Your task to perform on an android device: Show me productivity apps on the Play Store Image 0: 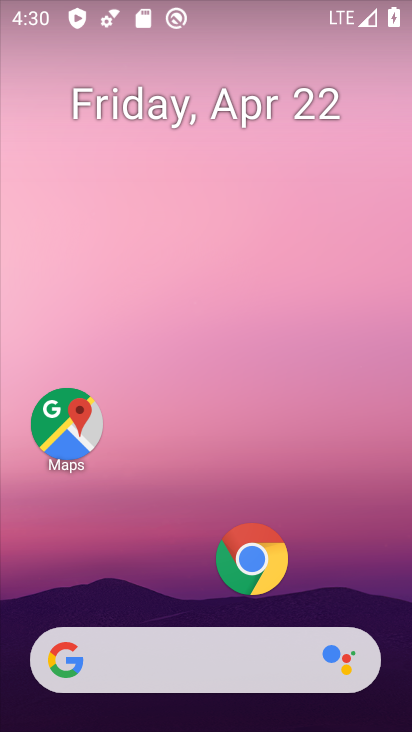
Step 0: drag from (151, 580) to (228, 219)
Your task to perform on an android device: Show me productivity apps on the Play Store Image 1: 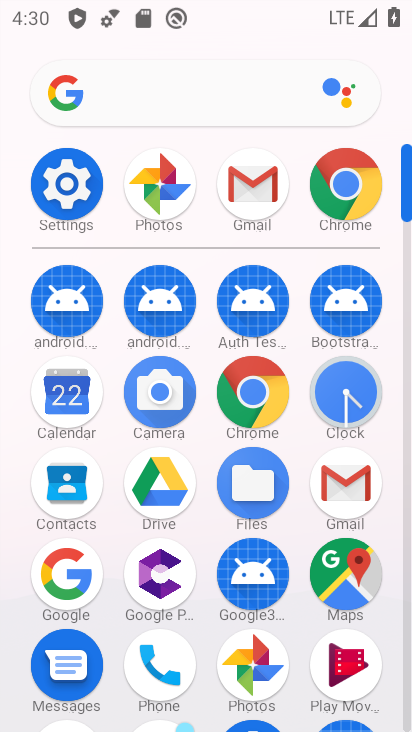
Step 1: drag from (206, 491) to (224, 242)
Your task to perform on an android device: Show me productivity apps on the Play Store Image 2: 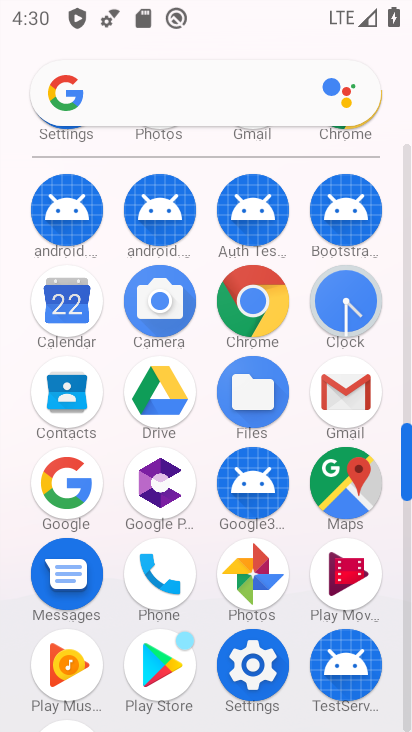
Step 2: click (161, 657)
Your task to perform on an android device: Show me productivity apps on the Play Store Image 3: 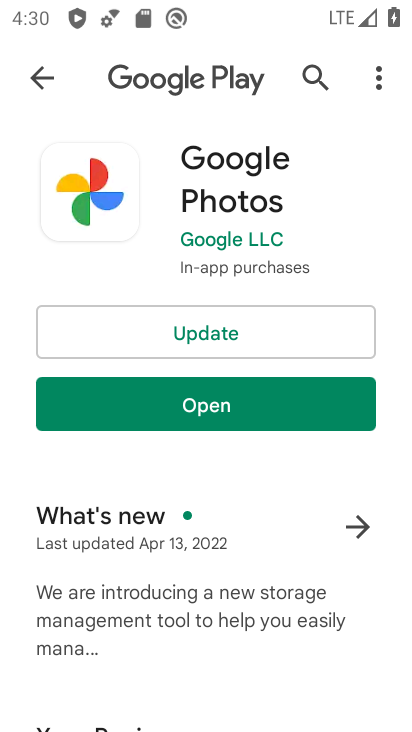
Step 3: click (46, 71)
Your task to perform on an android device: Show me productivity apps on the Play Store Image 4: 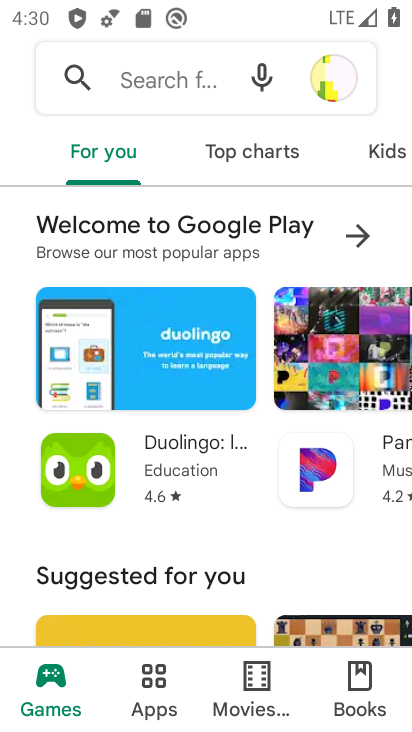
Step 4: click (143, 700)
Your task to perform on an android device: Show me productivity apps on the Play Store Image 5: 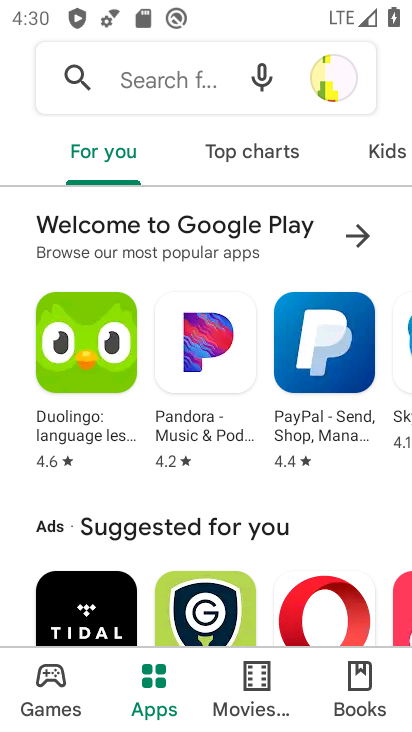
Step 5: drag from (379, 151) to (16, 157)
Your task to perform on an android device: Show me productivity apps on the Play Store Image 6: 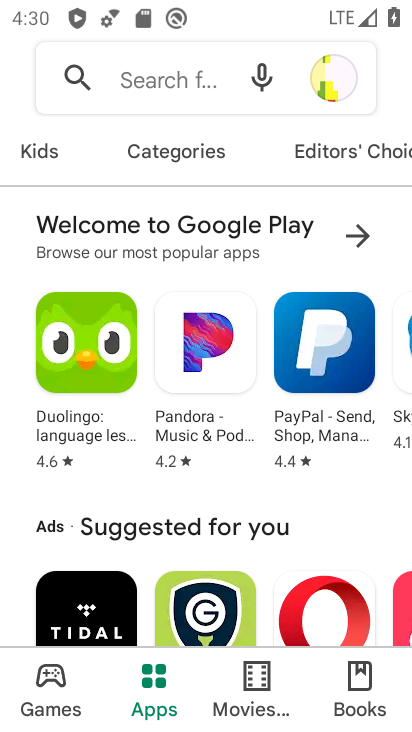
Step 6: click (138, 153)
Your task to perform on an android device: Show me productivity apps on the Play Store Image 7: 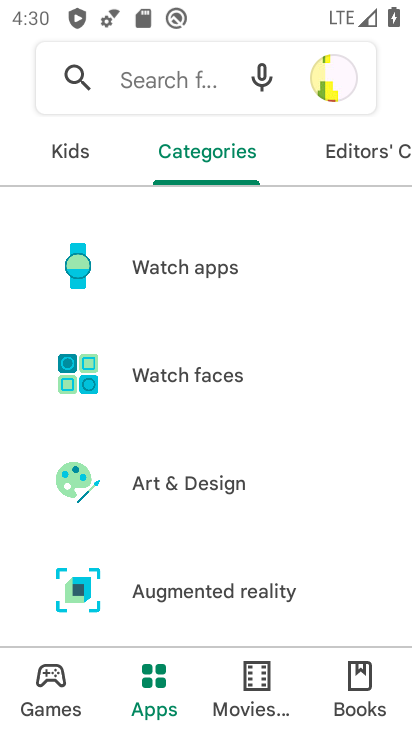
Step 7: drag from (167, 509) to (241, 112)
Your task to perform on an android device: Show me productivity apps on the Play Store Image 8: 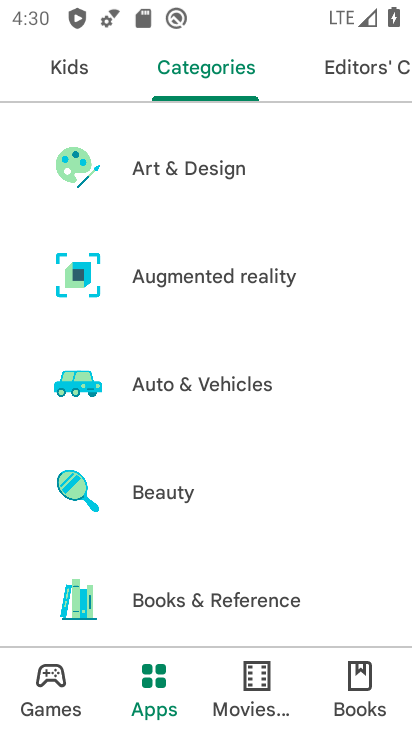
Step 8: drag from (169, 556) to (270, 162)
Your task to perform on an android device: Show me productivity apps on the Play Store Image 9: 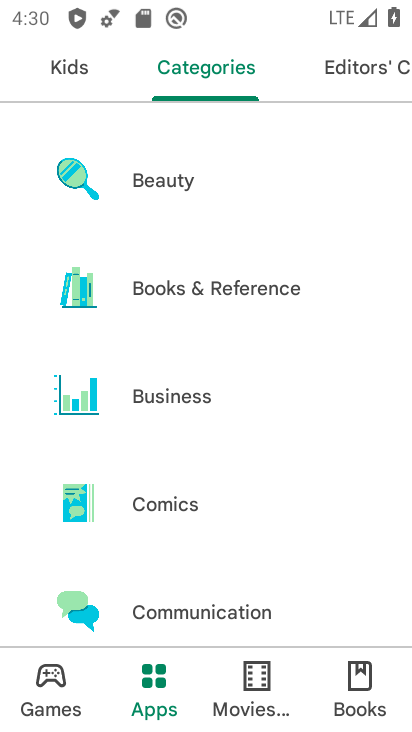
Step 9: drag from (181, 563) to (275, 46)
Your task to perform on an android device: Show me productivity apps on the Play Store Image 10: 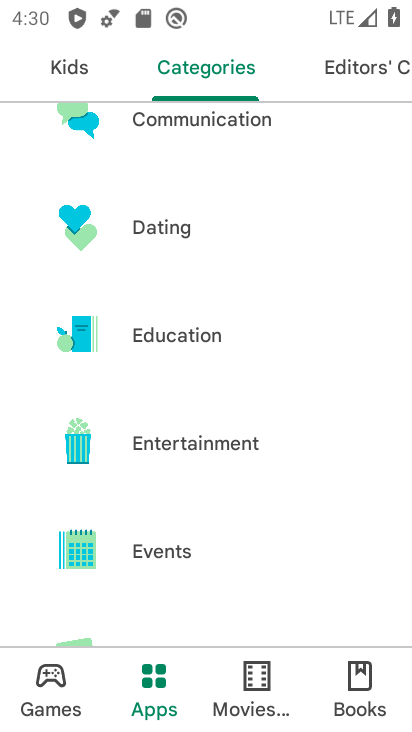
Step 10: drag from (150, 522) to (214, 49)
Your task to perform on an android device: Show me productivity apps on the Play Store Image 11: 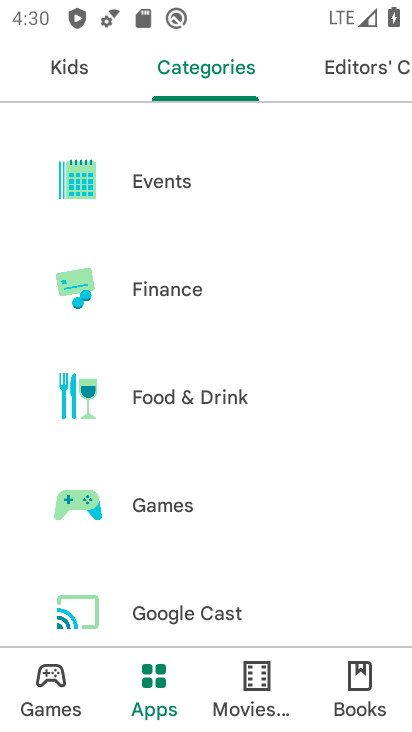
Step 11: drag from (179, 601) to (264, 124)
Your task to perform on an android device: Show me productivity apps on the Play Store Image 12: 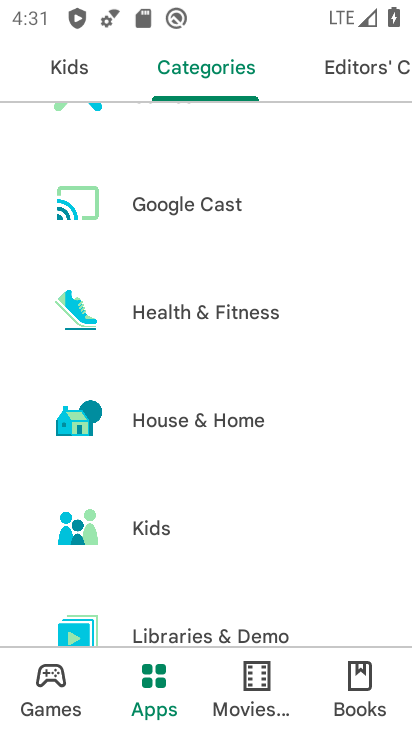
Step 12: drag from (148, 571) to (202, 290)
Your task to perform on an android device: Show me productivity apps on the Play Store Image 13: 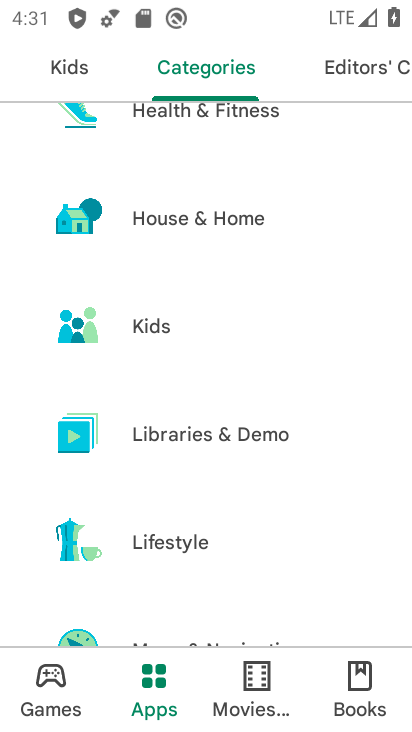
Step 13: drag from (193, 592) to (223, 197)
Your task to perform on an android device: Show me productivity apps on the Play Store Image 14: 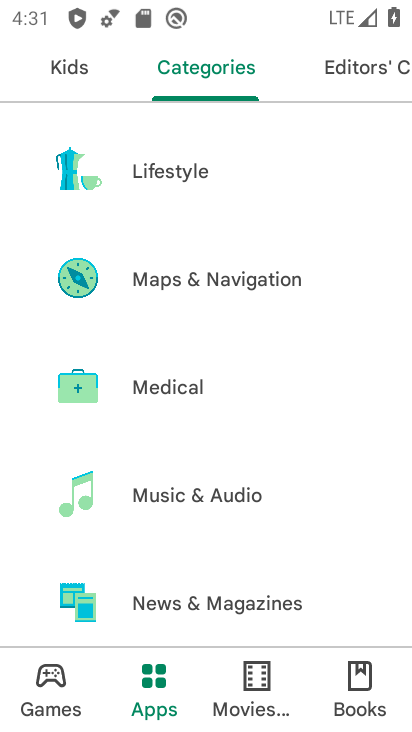
Step 14: drag from (187, 592) to (218, 213)
Your task to perform on an android device: Show me productivity apps on the Play Store Image 15: 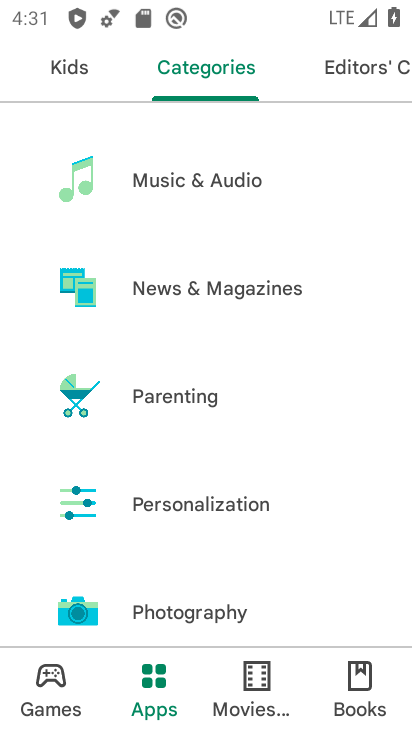
Step 15: drag from (195, 575) to (205, 201)
Your task to perform on an android device: Show me productivity apps on the Play Store Image 16: 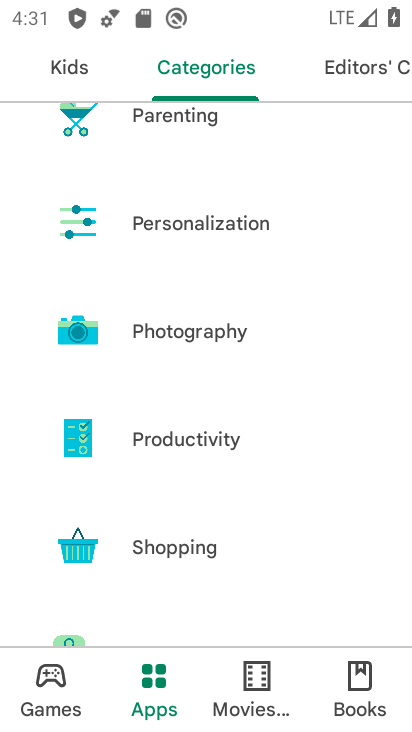
Step 16: click (166, 433)
Your task to perform on an android device: Show me productivity apps on the Play Store Image 17: 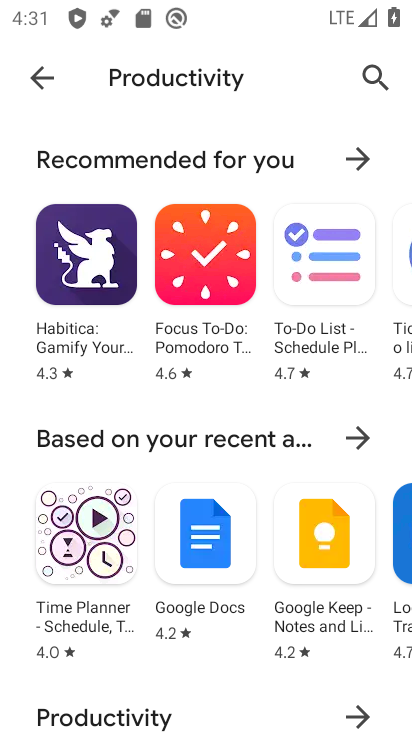
Step 17: task complete